Your task to perform on an android device: turn on notifications settings in the gmail app Image 0: 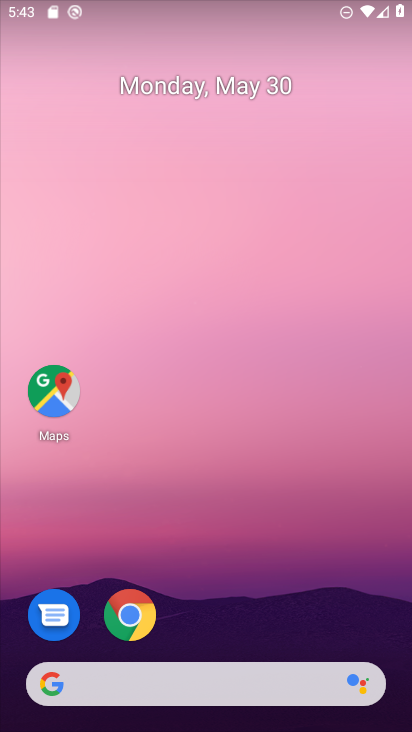
Step 0: drag from (189, 626) to (153, 76)
Your task to perform on an android device: turn on notifications settings in the gmail app Image 1: 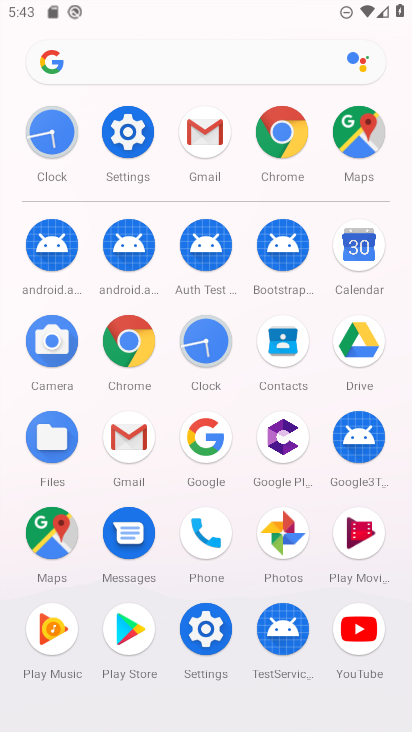
Step 1: click (222, 131)
Your task to perform on an android device: turn on notifications settings in the gmail app Image 2: 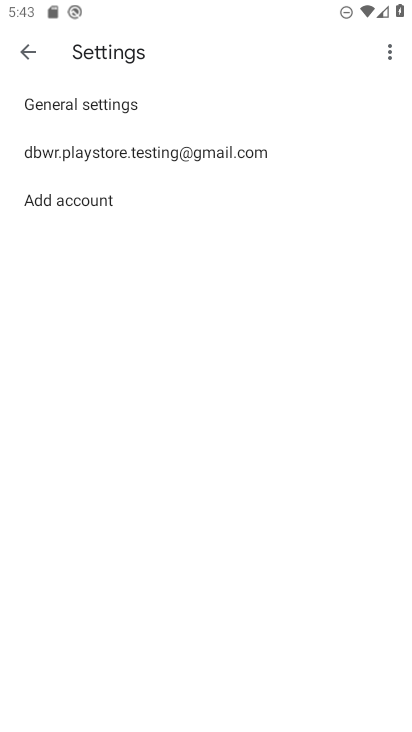
Step 2: click (135, 156)
Your task to perform on an android device: turn on notifications settings in the gmail app Image 3: 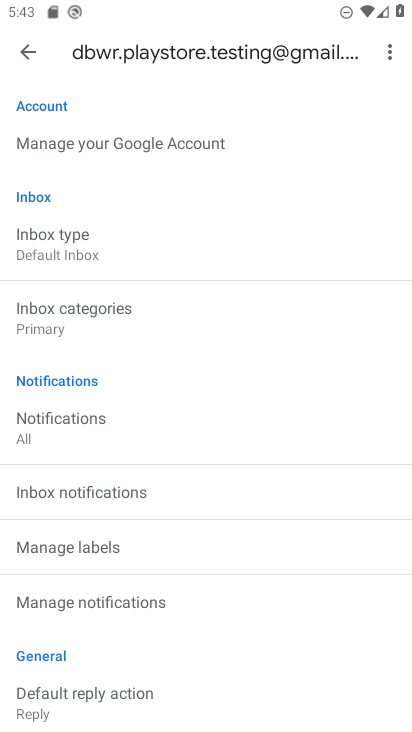
Step 3: click (70, 466)
Your task to perform on an android device: turn on notifications settings in the gmail app Image 4: 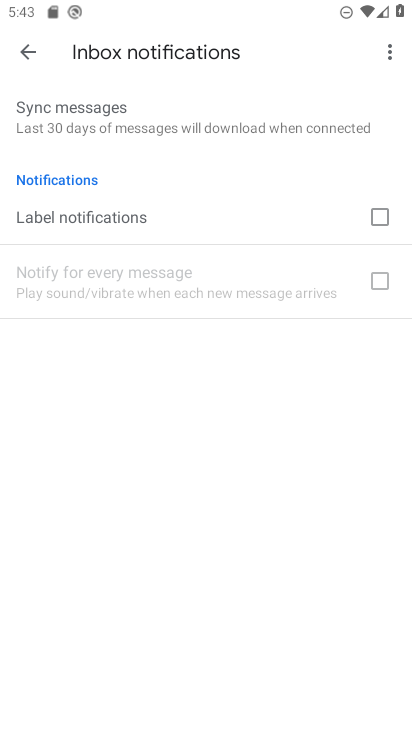
Step 4: click (35, 47)
Your task to perform on an android device: turn on notifications settings in the gmail app Image 5: 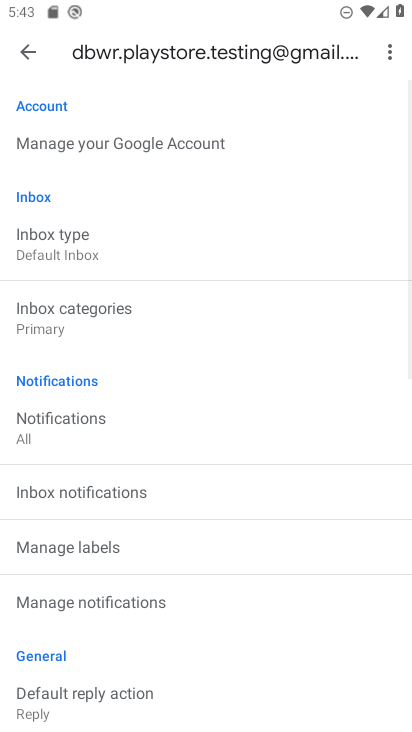
Step 5: click (166, 422)
Your task to perform on an android device: turn on notifications settings in the gmail app Image 6: 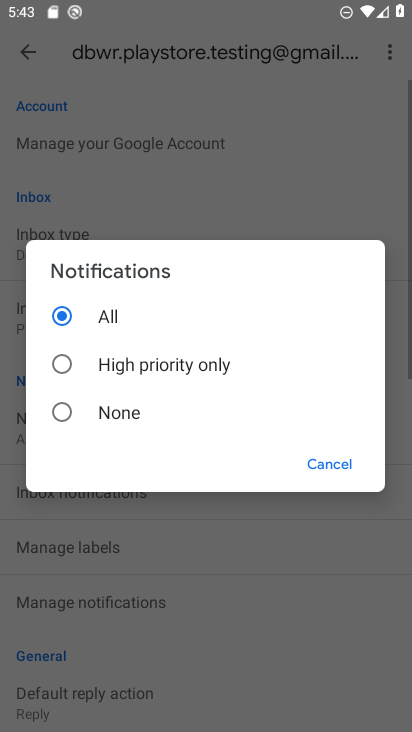
Step 6: task complete